Your task to perform on an android device: Go to ESPN.com Image 0: 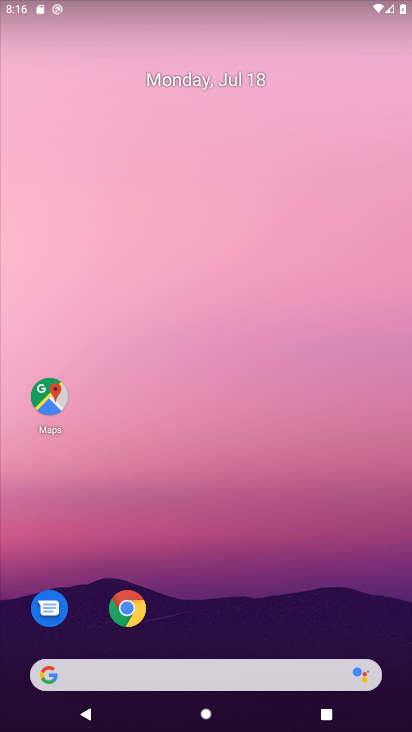
Step 0: click (126, 609)
Your task to perform on an android device: Go to ESPN.com Image 1: 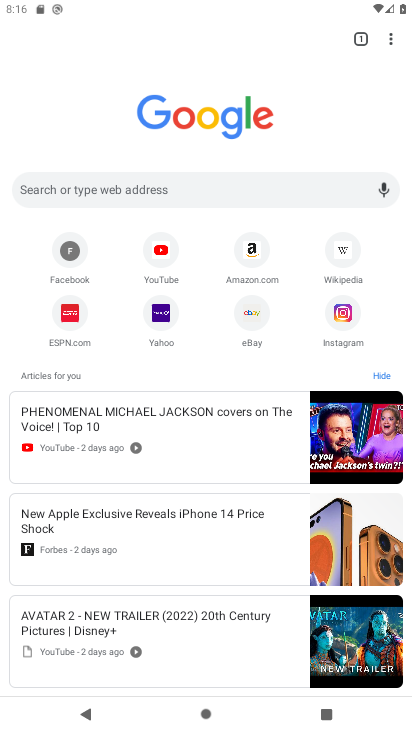
Step 1: click (73, 313)
Your task to perform on an android device: Go to ESPN.com Image 2: 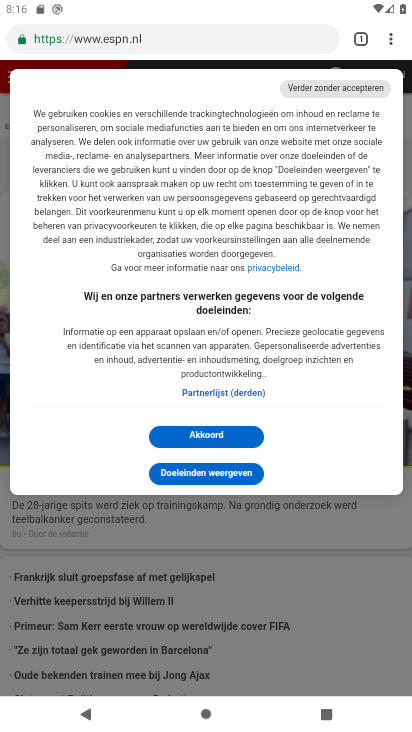
Step 2: click (218, 426)
Your task to perform on an android device: Go to ESPN.com Image 3: 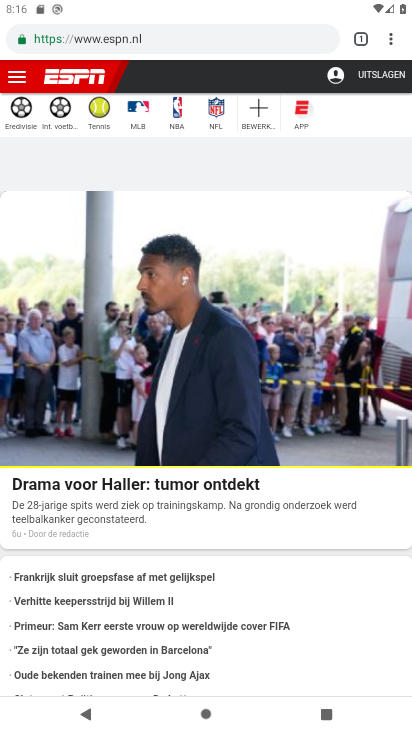
Step 3: click (214, 435)
Your task to perform on an android device: Go to ESPN.com Image 4: 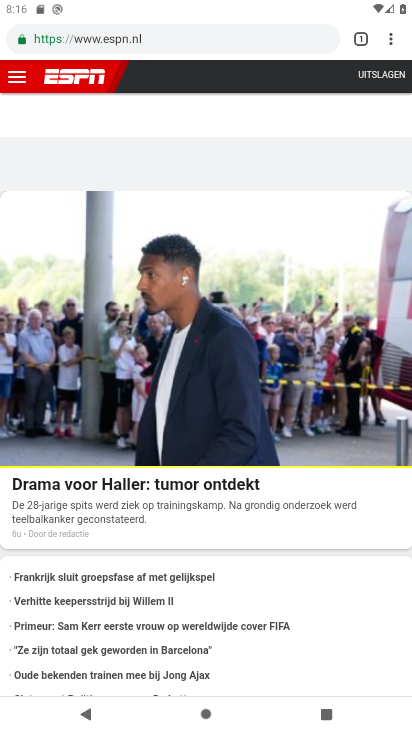
Step 4: task complete